Your task to perform on an android device: Open Wikipedia Image 0: 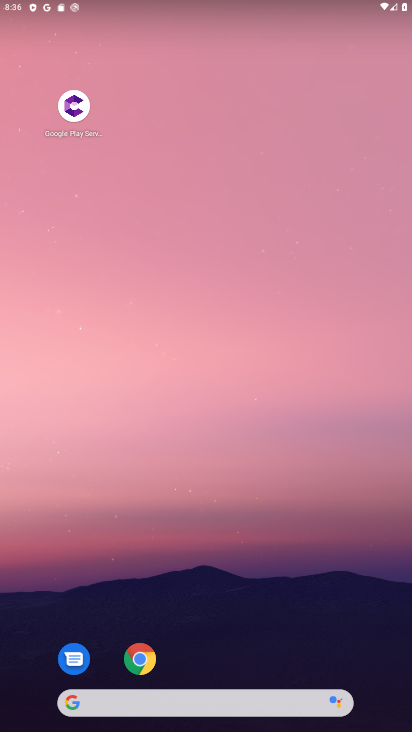
Step 0: drag from (215, 650) to (189, 137)
Your task to perform on an android device: Open Wikipedia Image 1: 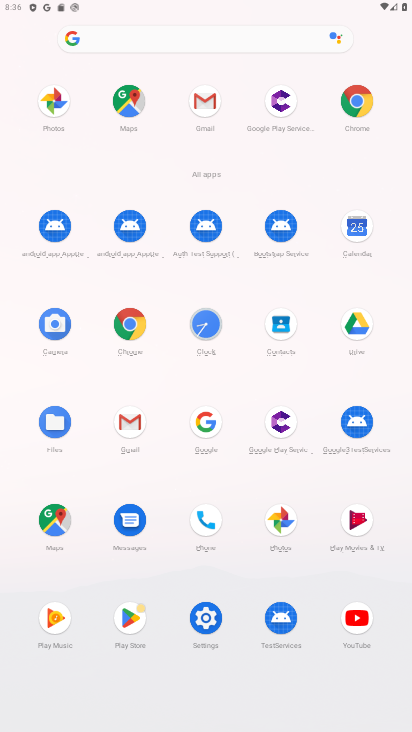
Step 1: click (361, 120)
Your task to perform on an android device: Open Wikipedia Image 2: 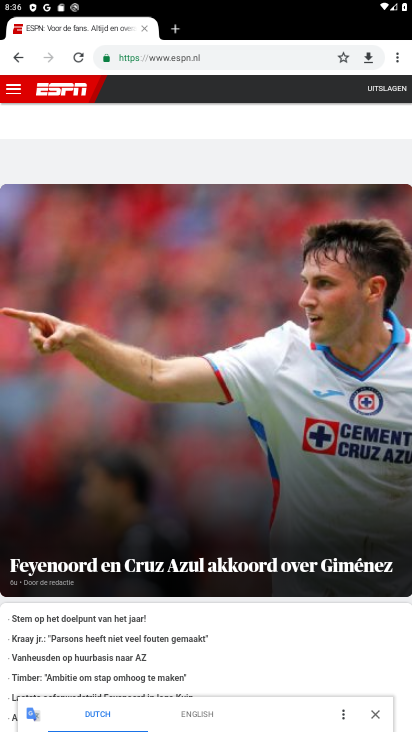
Step 2: click (181, 28)
Your task to perform on an android device: Open Wikipedia Image 3: 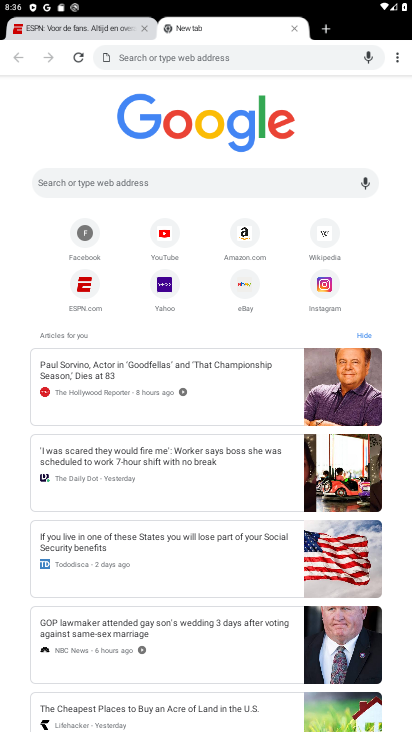
Step 3: click (323, 246)
Your task to perform on an android device: Open Wikipedia Image 4: 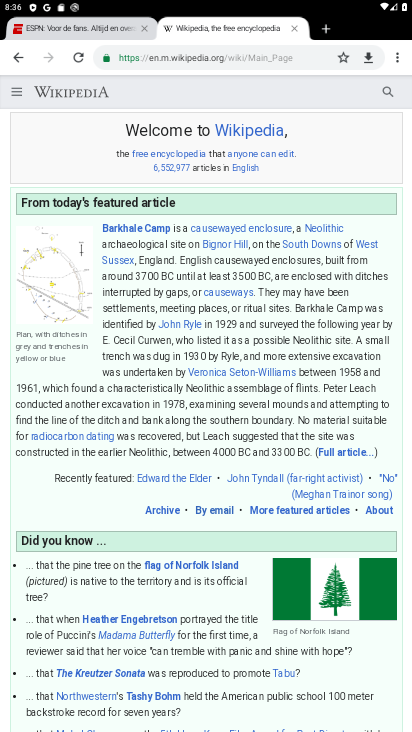
Step 4: task complete